Your task to perform on an android device: Search for pizza restaurants on Maps Image 0: 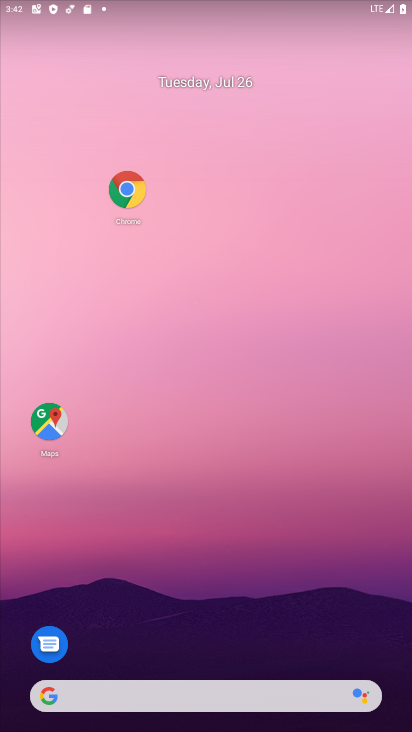
Step 0: click (46, 433)
Your task to perform on an android device: Search for pizza restaurants on Maps Image 1: 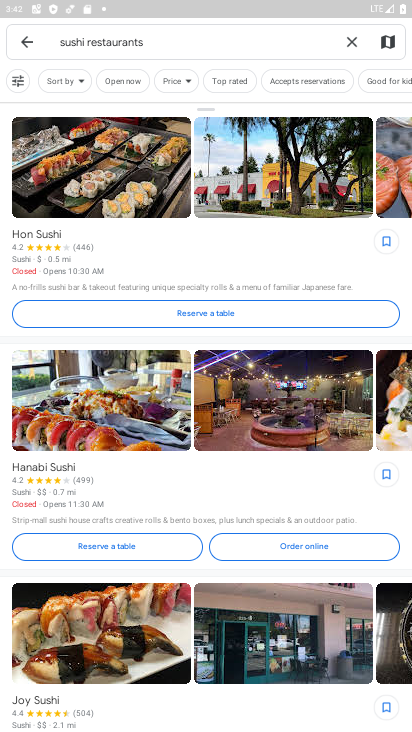
Step 1: click (360, 39)
Your task to perform on an android device: Search for pizza restaurants on Maps Image 2: 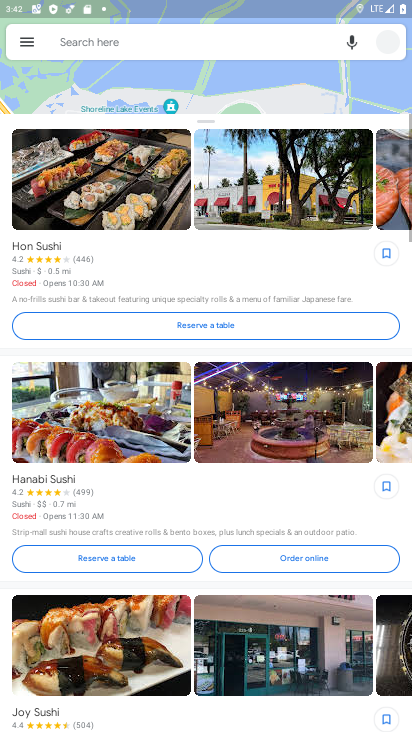
Step 2: click (145, 42)
Your task to perform on an android device: Search for pizza restaurants on Maps Image 3: 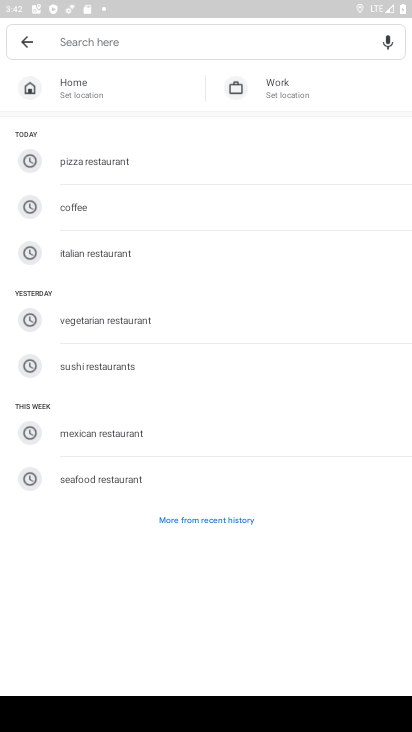
Step 3: click (89, 150)
Your task to perform on an android device: Search for pizza restaurants on Maps Image 4: 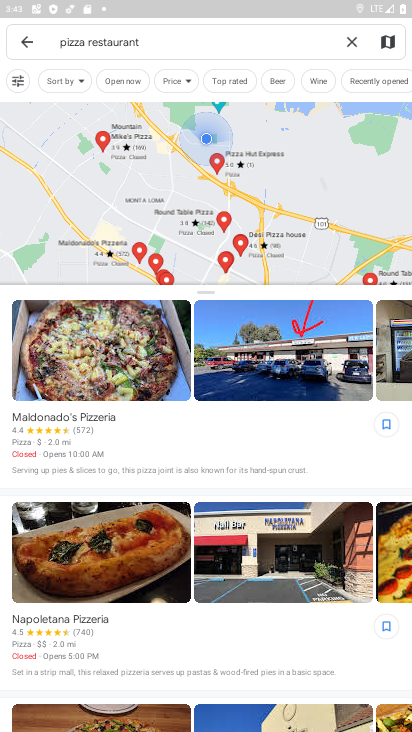
Step 4: task complete